Your task to perform on an android device: Open maps Image 0: 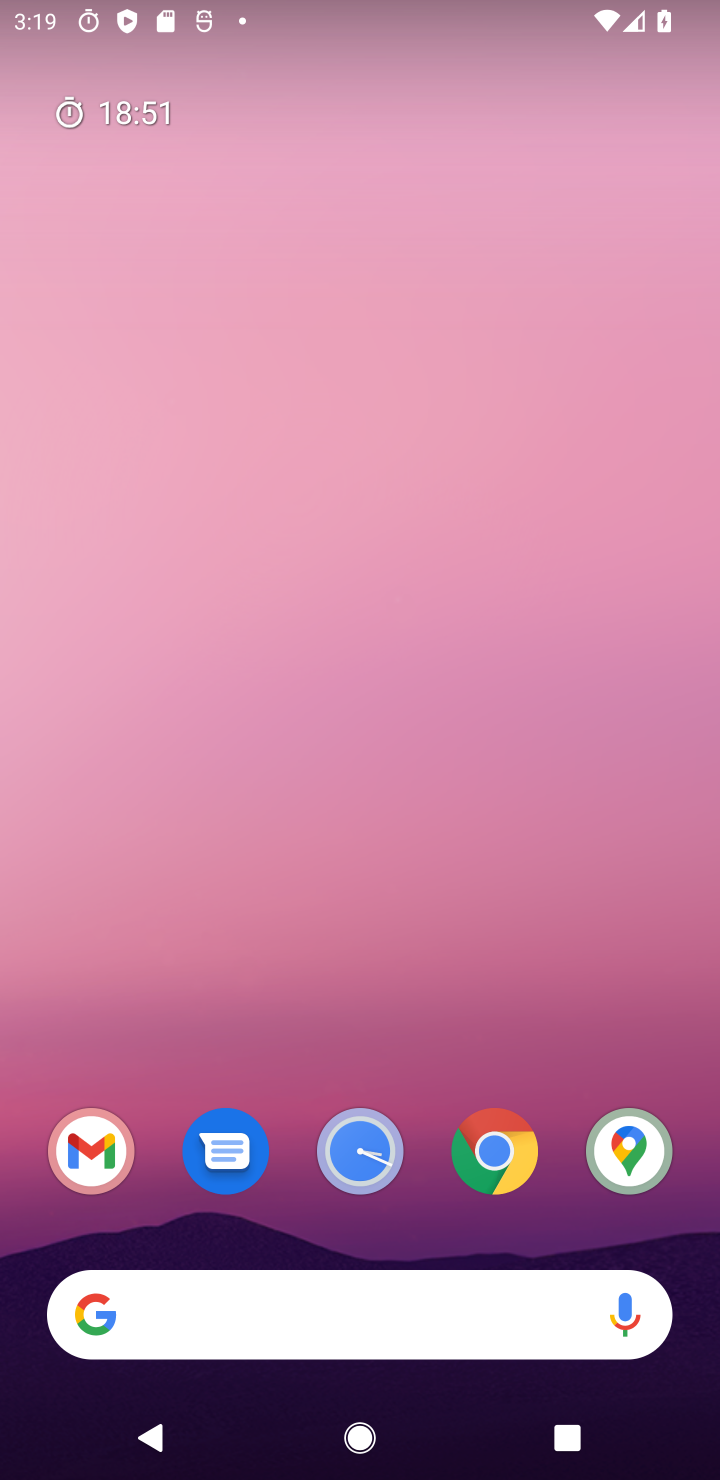
Step 0: click (616, 1136)
Your task to perform on an android device: Open maps Image 1: 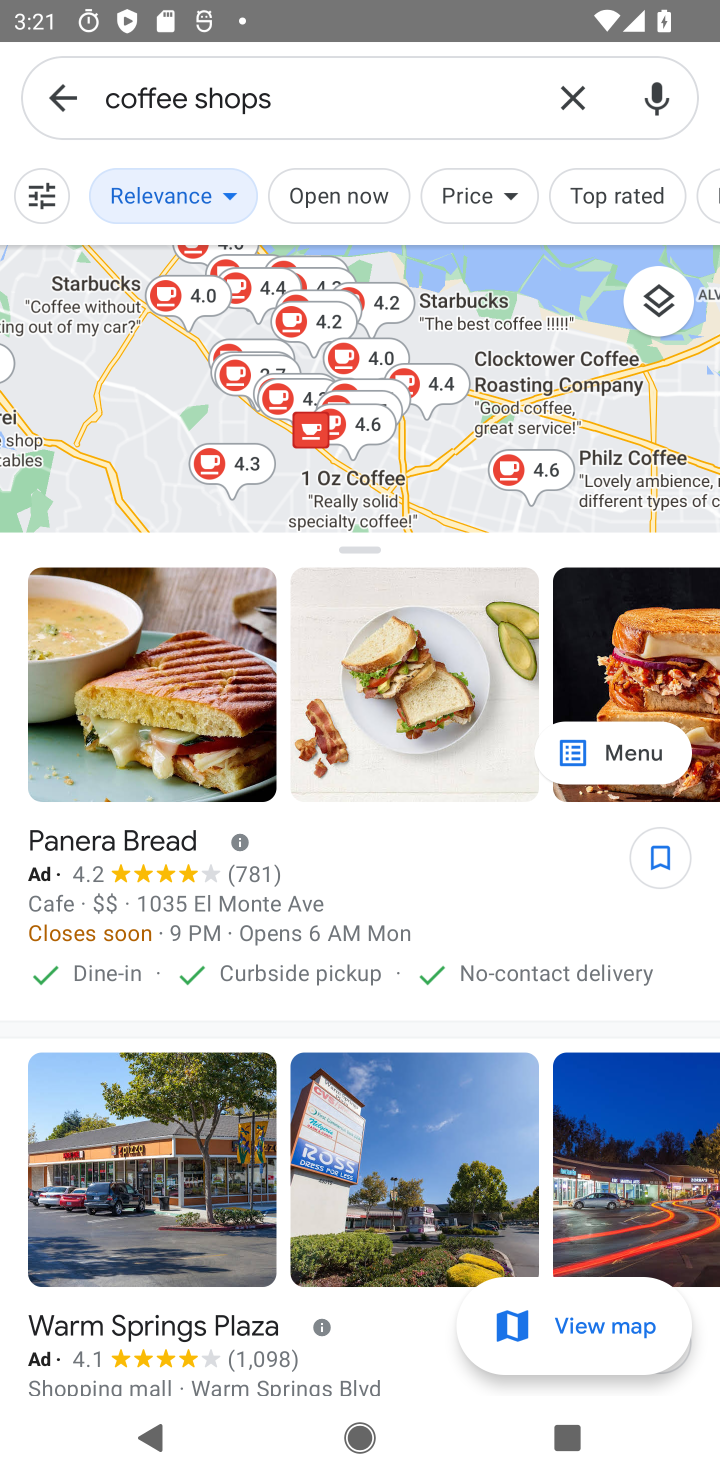
Step 1: task complete